Your task to perform on an android device: turn vacation reply on in the gmail app Image 0: 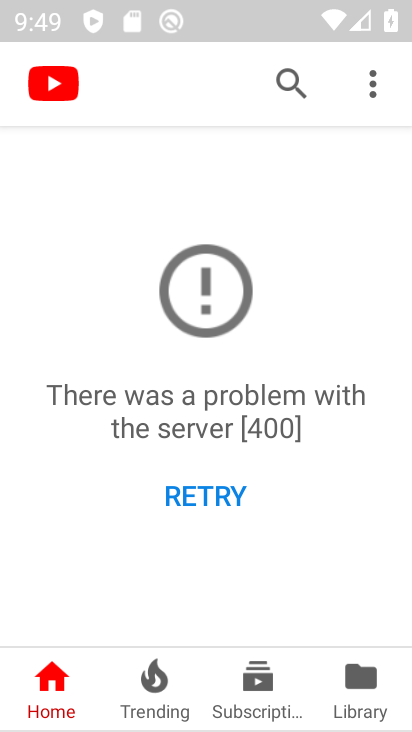
Step 0: press home button
Your task to perform on an android device: turn vacation reply on in the gmail app Image 1: 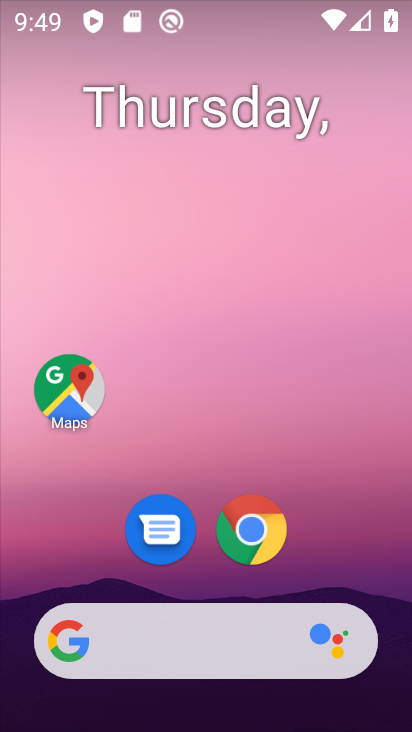
Step 1: drag from (336, 522) to (229, 200)
Your task to perform on an android device: turn vacation reply on in the gmail app Image 2: 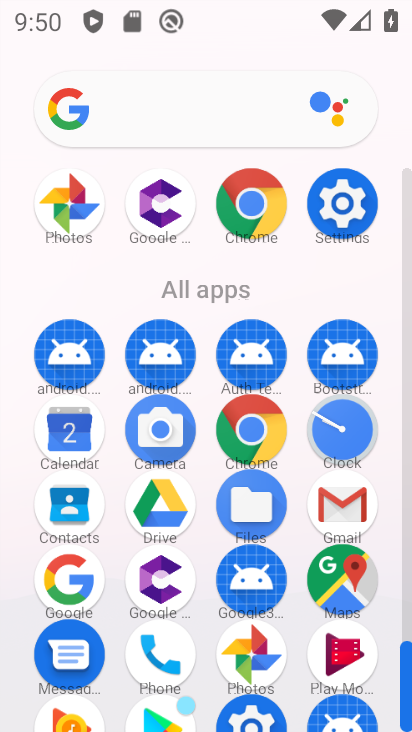
Step 2: click (346, 511)
Your task to perform on an android device: turn vacation reply on in the gmail app Image 3: 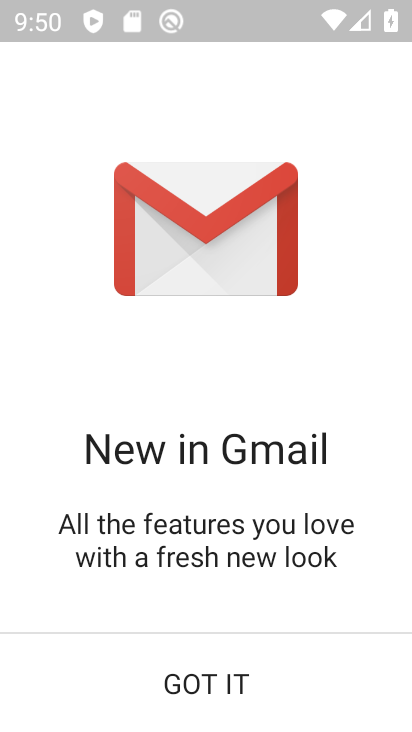
Step 3: click (214, 678)
Your task to perform on an android device: turn vacation reply on in the gmail app Image 4: 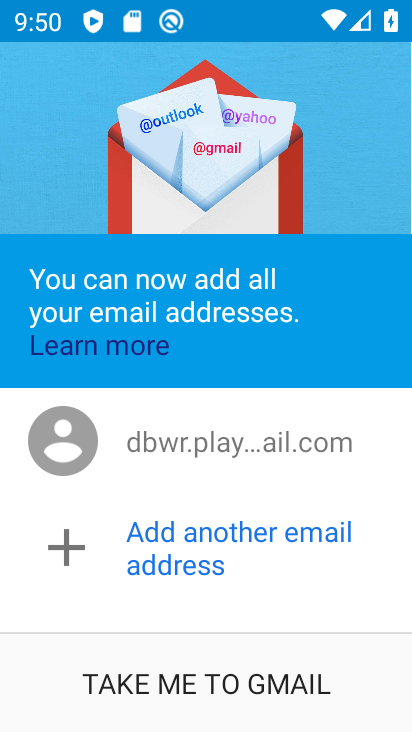
Step 4: click (210, 679)
Your task to perform on an android device: turn vacation reply on in the gmail app Image 5: 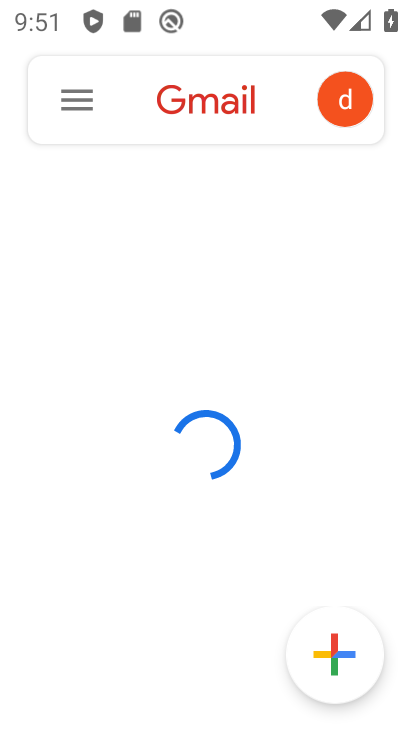
Step 5: click (78, 98)
Your task to perform on an android device: turn vacation reply on in the gmail app Image 6: 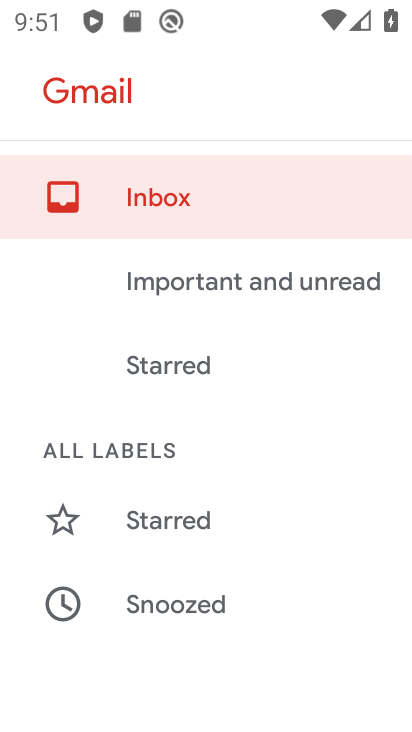
Step 6: drag from (238, 544) to (228, 86)
Your task to perform on an android device: turn vacation reply on in the gmail app Image 7: 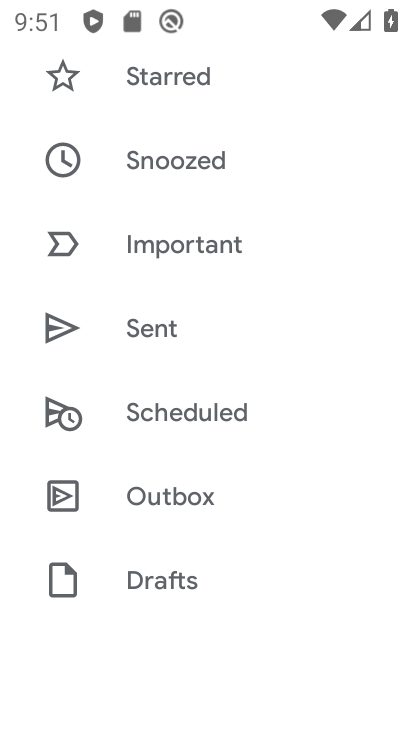
Step 7: drag from (265, 469) to (131, 157)
Your task to perform on an android device: turn vacation reply on in the gmail app Image 8: 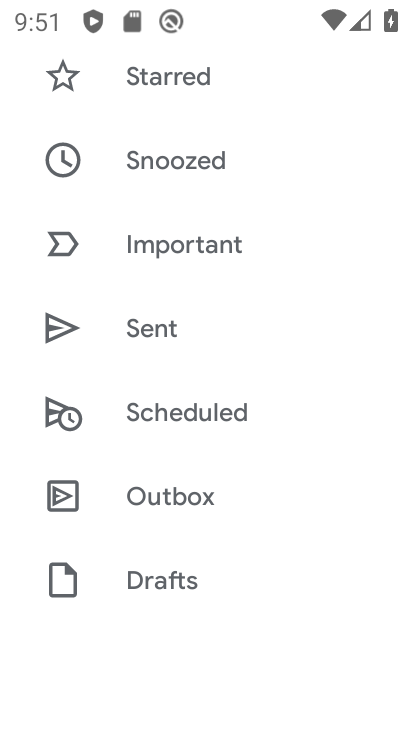
Step 8: drag from (296, 581) to (250, 216)
Your task to perform on an android device: turn vacation reply on in the gmail app Image 9: 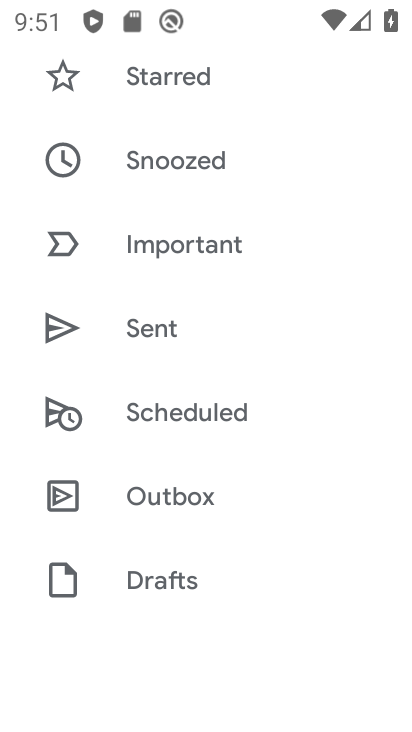
Step 9: drag from (224, 548) to (208, 24)
Your task to perform on an android device: turn vacation reply on in the gmail app Image 10: 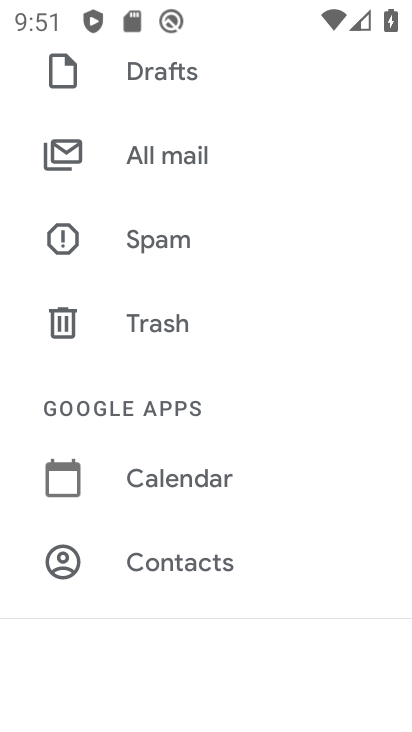
Step 10: drag from (178, 523) to (90, 17)
Your task to perform on an android device: turn vacation reply on in the gmail app Image 11: 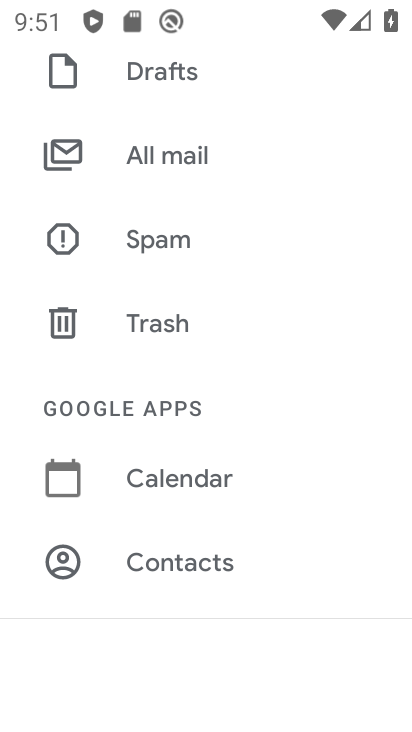
Step 11: drag from (134, 512) to (174, 8)
Your task to perform on an android device: turn vacation reply on in the gmail app Image 12: 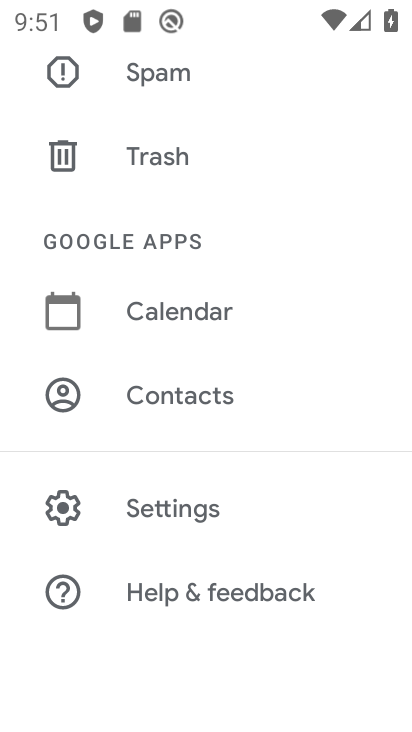
Step 12: click (150, 503)
Your task to perform on an android device: turn vacation reply on in the gmail app Image 13: 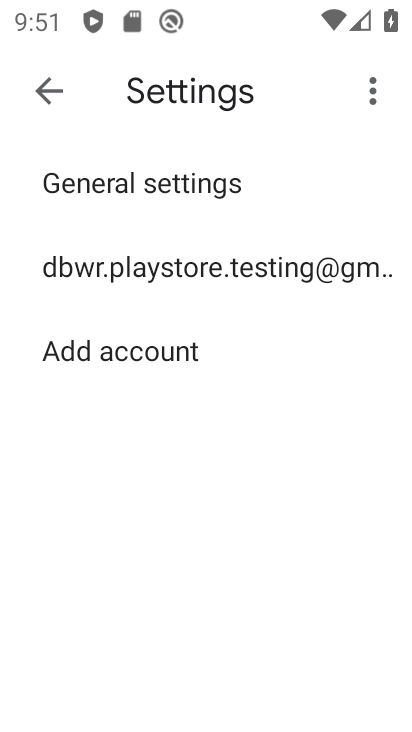
Step 13: click (153, 270)
Your task to perform on an android device: turn vacation reply on in the gmail app Image 14: 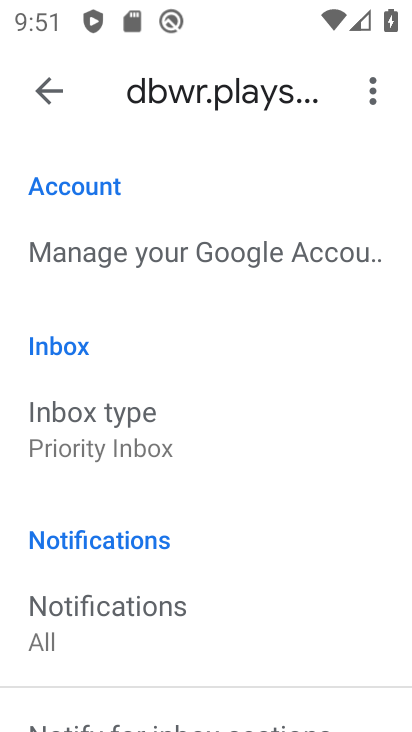
Step 14: drag from (248, 581) to (193, 200)
Your task to perform on an android device: turn vacation reply on in the gmail app Image 15: 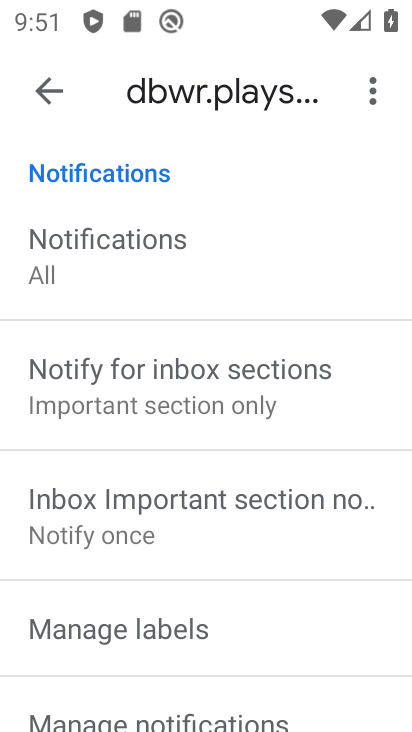
Step 15: drag from (243, 599) to (125, 153)
Your task to perform on an android device: turn vacation reply on in the gmail app Image 16: 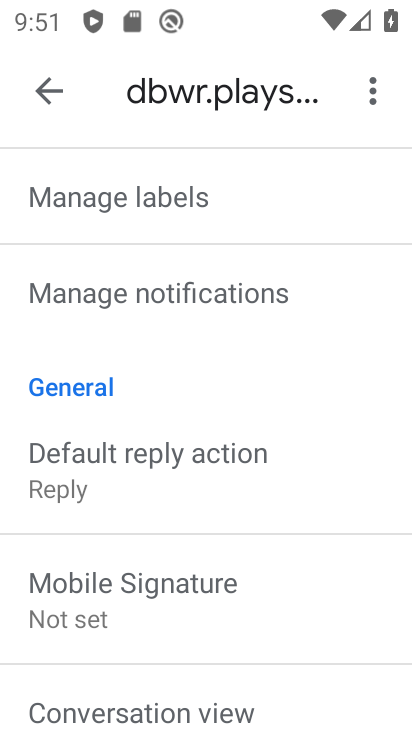
Step 16: drag from (197, 519) to (127, 133)
Your task to perform on an android device: turn vacation reply on in the gmail app Image 17: 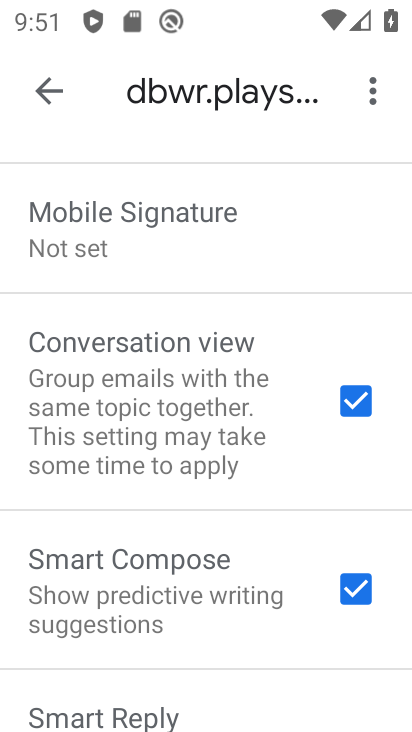
Step 17: drag from (187, 505) to (157, 3)
Your task to perform on an android device: turn vacation reply on in the gmail app Image 18: 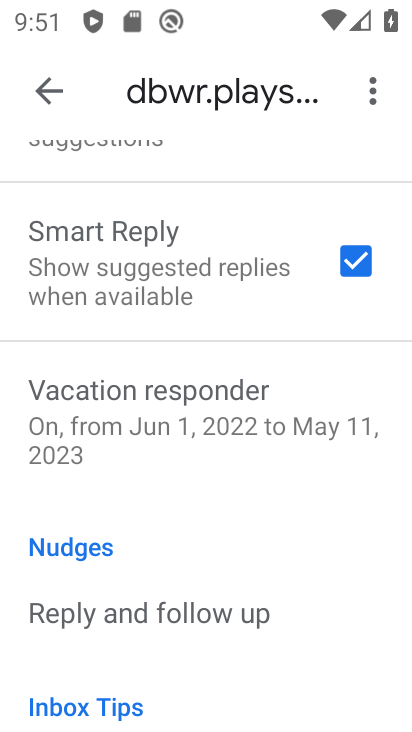
Step 18: click (204, 399)
Your task to perform on an android device: turn vacation reply on in the gmail app Image 19: 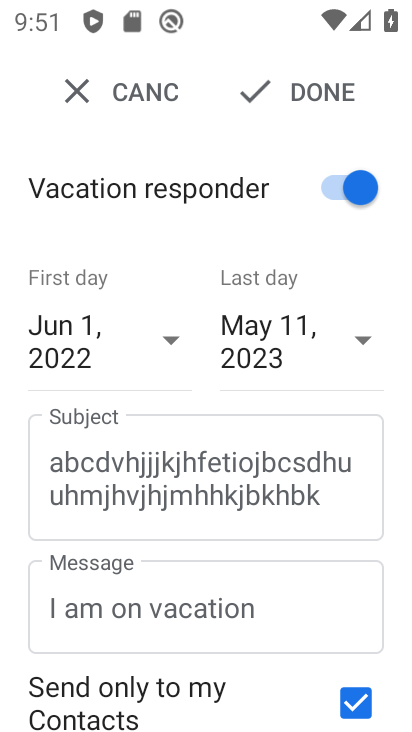
Step 19: task complete